Your task to perform on an android device: find which apps use the phone's location Image 0: 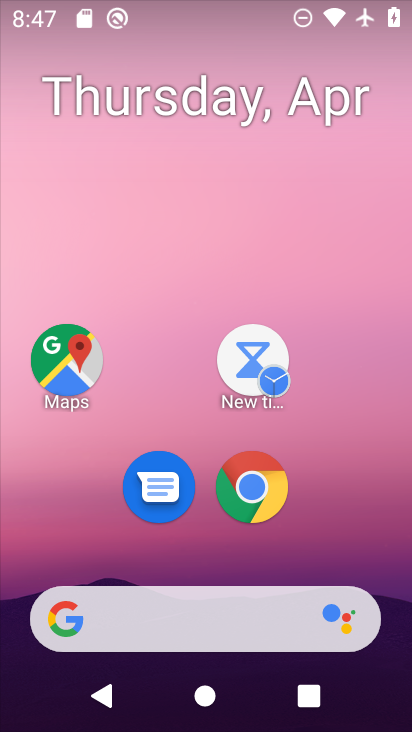
Step 0: drag from (373, 504) to (212, 133)
Your task to perform on an android device: find which apps use the phone's location Image 1: 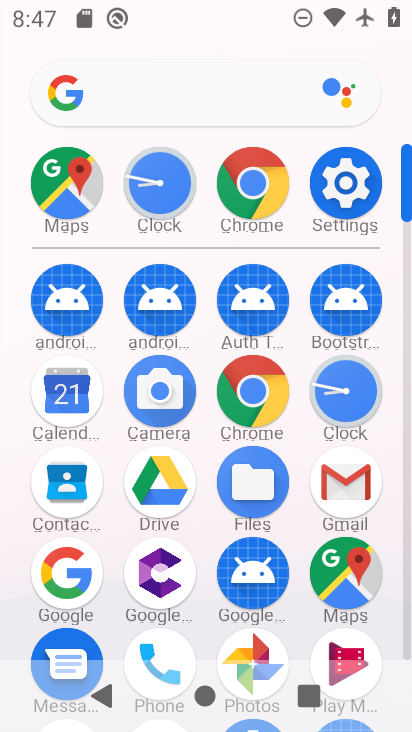
Step 1: click (345, 180)
Your task to perform on an android device: find which apps use the phone's location Image 2: 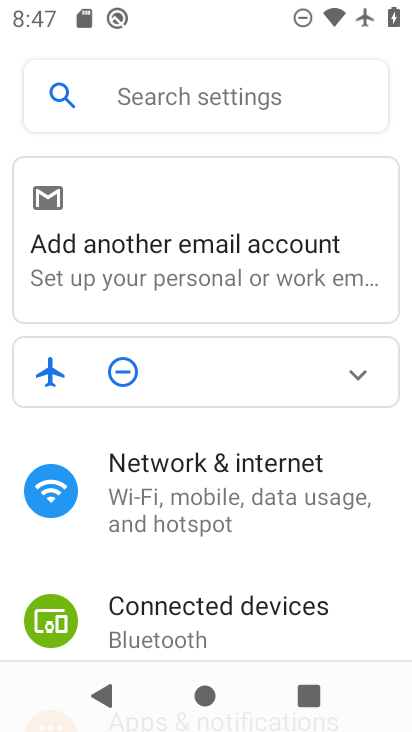
Step 2: drag from (219, 583) to (213, 194)
Your task to perform on an android device: find which apps use the phone's location Image 3: 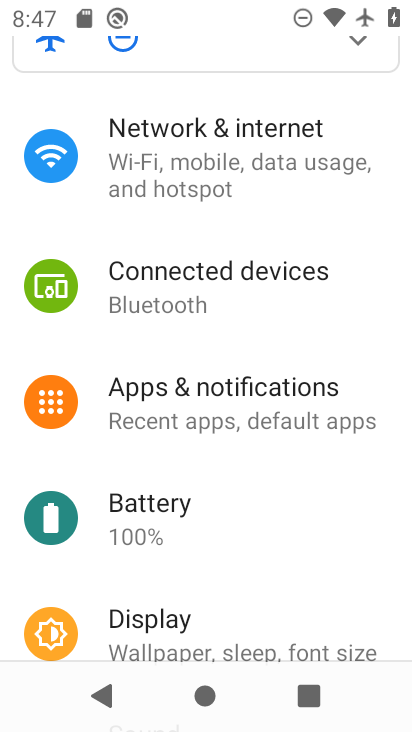
Step 3: drag from (163, 539) to (182, 236)
Your task to perform on an android device: find which apps use the phone's location Image 4: 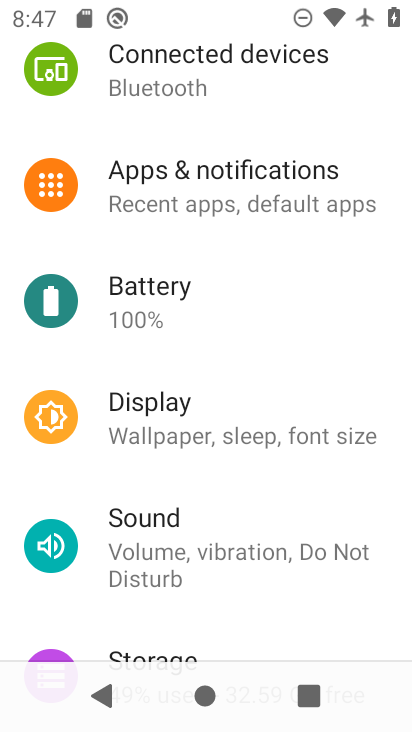
Step 4: drag from (196, 554) to (200, 188)
Your task to perform on an android device: find which apps use the phone's location Image 5: 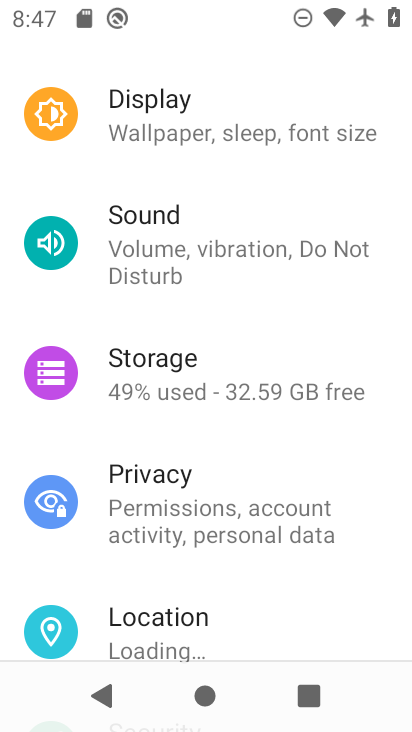
Step 5: click (116, 612)
Your task to perform on an android device: find which apps use the phone's location Image 6: 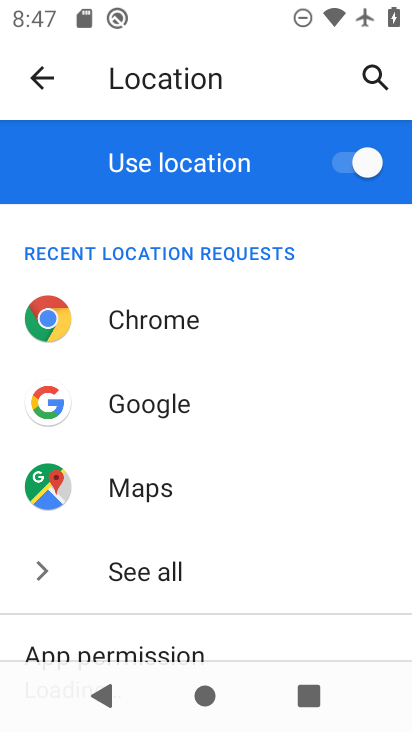
Step 6: drag from (249, 620) to (249, 327)
Your task to perform on an android device: find which apps use the phone's location Image 7: 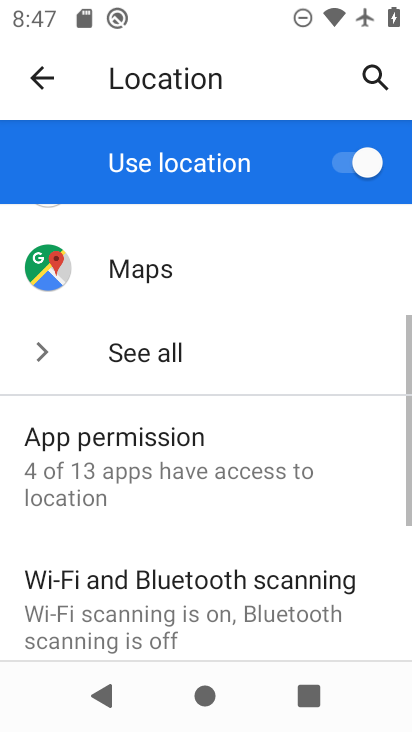
Step 7: click (113, 464)
Your task to perform on an android device: find which apps use the phone's location Image 8: 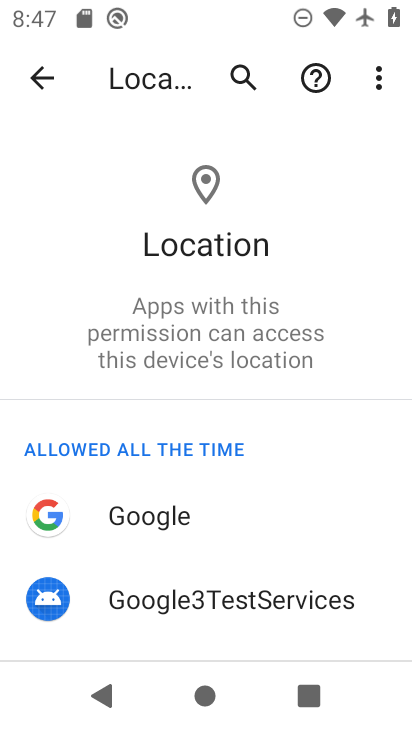
Step 8: task complete